Your task to perform on an android device: Go to internet settings Image 0: 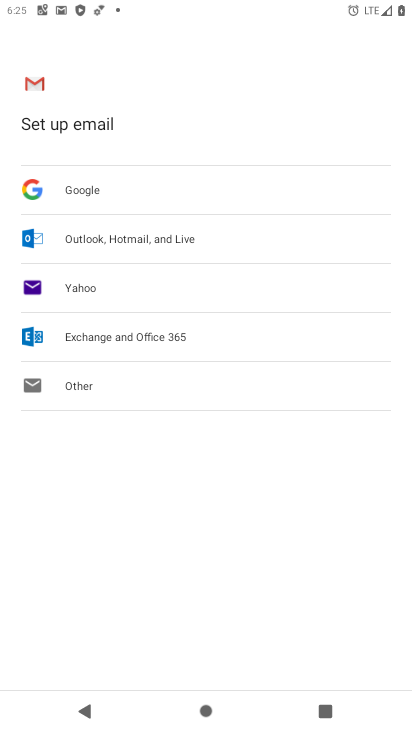
Step 0: press home button
Your task to perform on an android device: Go to internet settings Image 1: 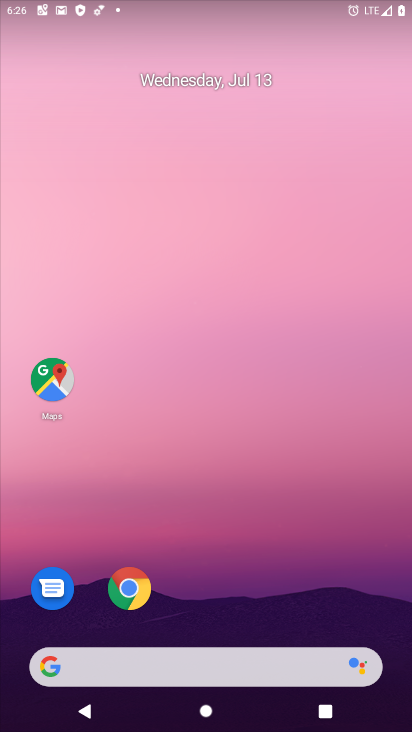
Step 1: click (203, 46)
Your task to perform on an android device: Go to internet settings Image 2: 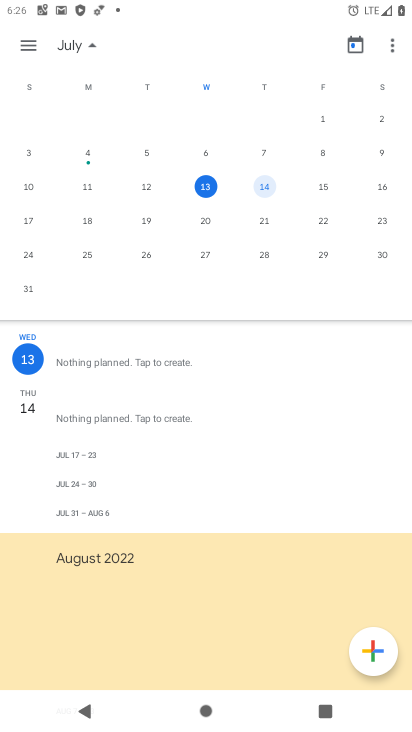
Step 2: press home button
Your task to perform on an android device: Go to internet settings Image 3: 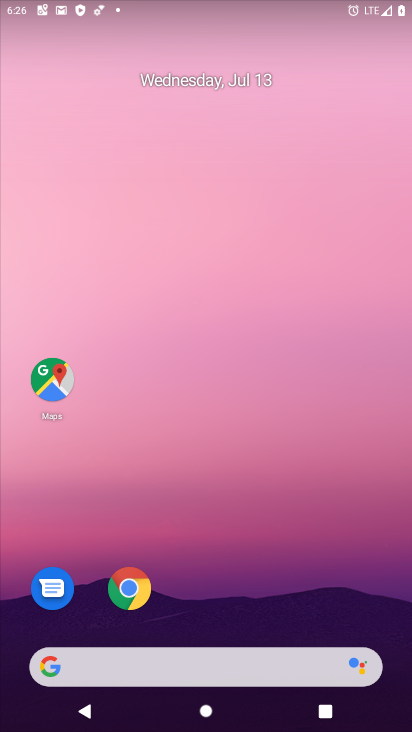
Step 3: drag from (211, 296) to (237, 17)
Your task to perform on an android device: Go to internet settings Image 4: 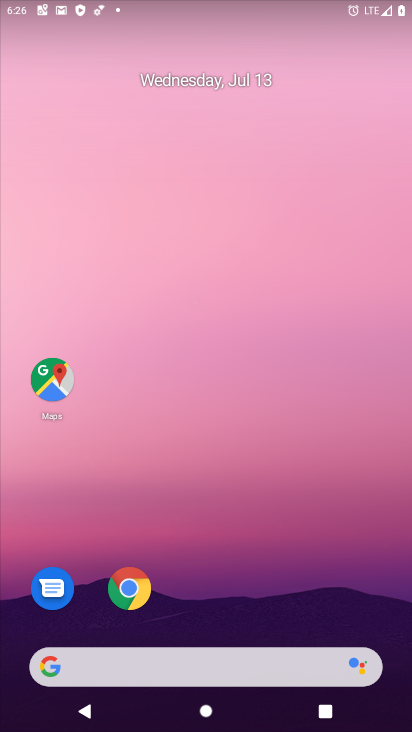
Step 4: drag from (202, 482) to (220, 73)
Your task to perform on an android device: Go to internet settings Image 5: 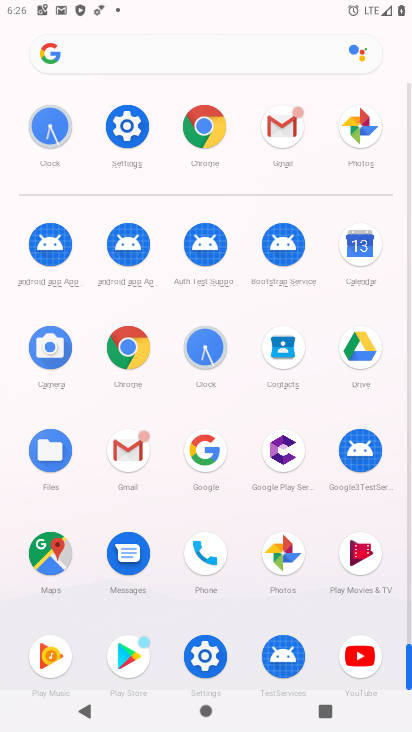
Step 5: click (131, 125)
Your task to perform on an android device: Go to internet settings Image 6: 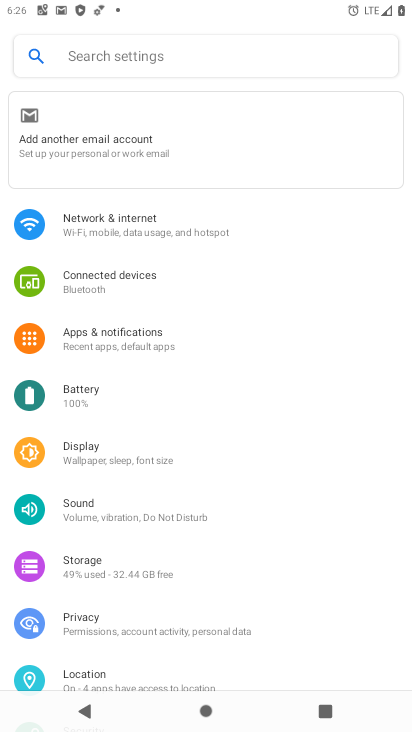
Step 6: click (119, 228)
Your task to perform on an android device: Go to internet settings Image 7: 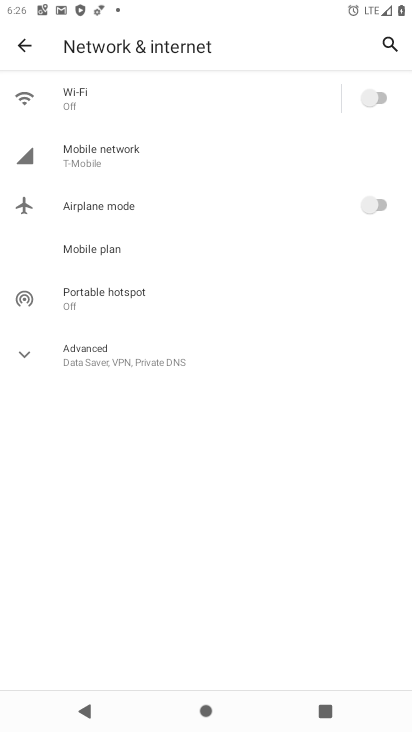
Step 7: task complete